Your task to perform on an android device: Search for vegetarian restaurants on Maps Image 0: 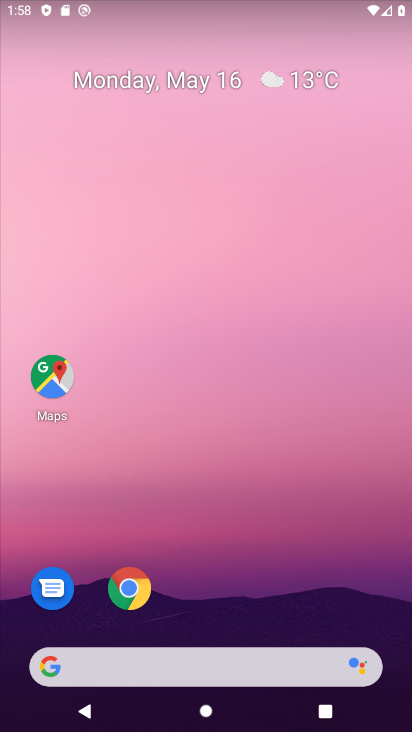
Step 0: click (39, 372)
Your task to perform on an android device: Search for vegetarian restaurants on Maps Image 1: 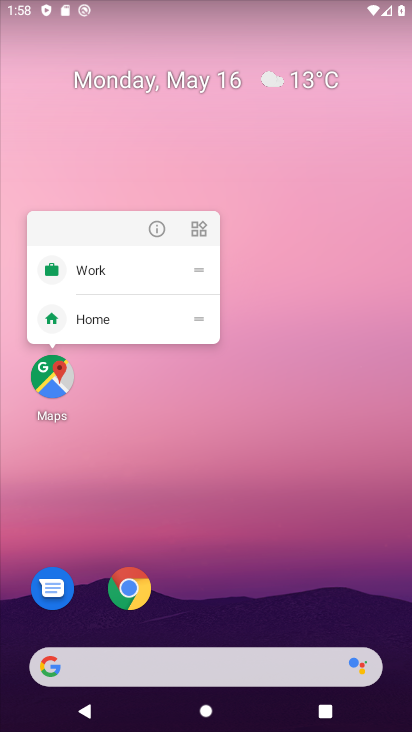
Step 1: click (59, 375)
Your task to perform on an android device: Search for vegetarian restaurants on Maps Image 2: 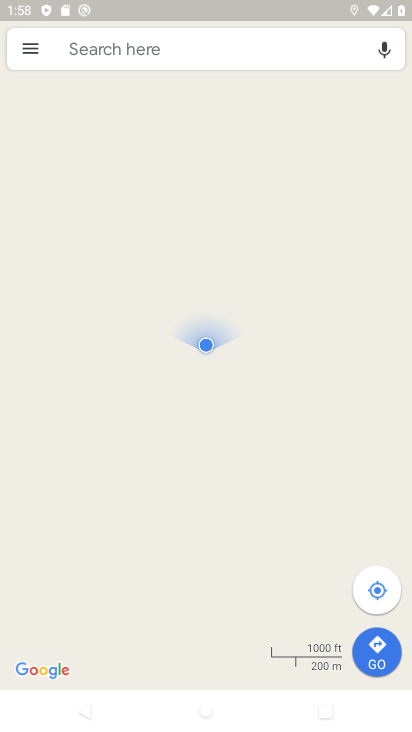
Step 2: click (198, 45)
Your task to perform on an android device: Search for vegetarian restaurants on Maps Image 3: 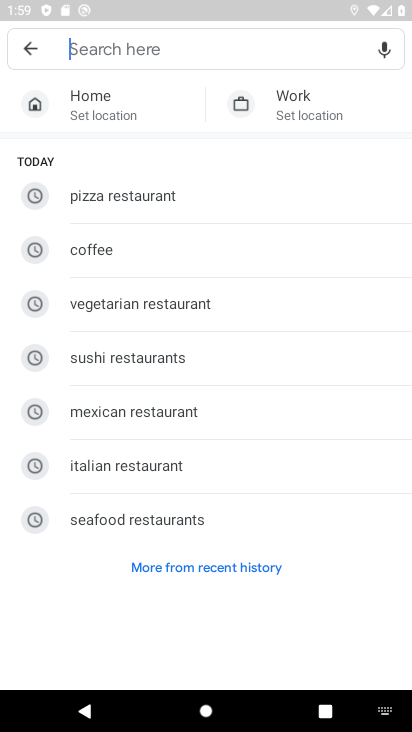
Step 3: type "Vegetarian restaurants"
Your task to perform on an android device: Search for vegetarian restaurants on Maps Image 4: 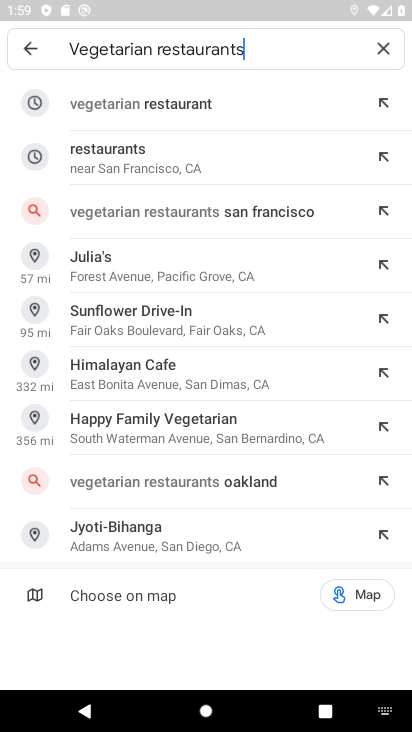
Step 4: click (267, 117)
Your task to perform on an android device: Search for vegetarian restaurants on Maps Image 5: 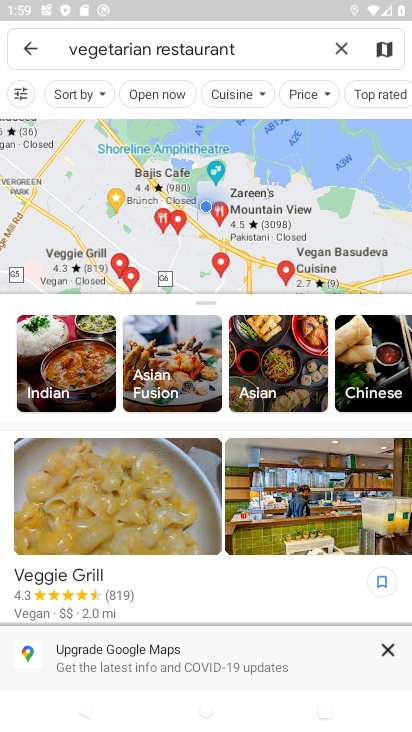
Step 5: task complete